Your task to perform on an android device: What's the weather going to be tomorrow? Image 0: 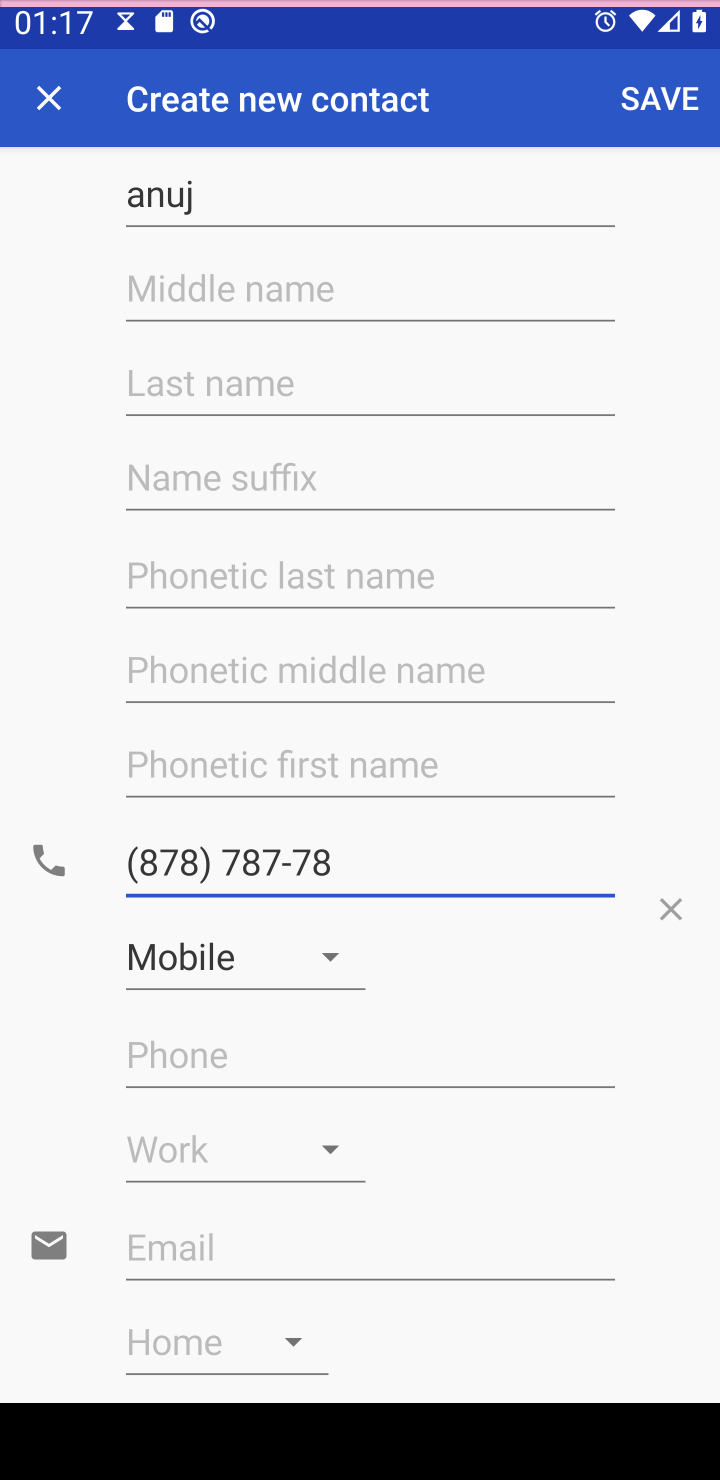
Step 0: click (443, 343)
Your task to perform on an android device: What's the weather going to be tomorrow? Image 1: 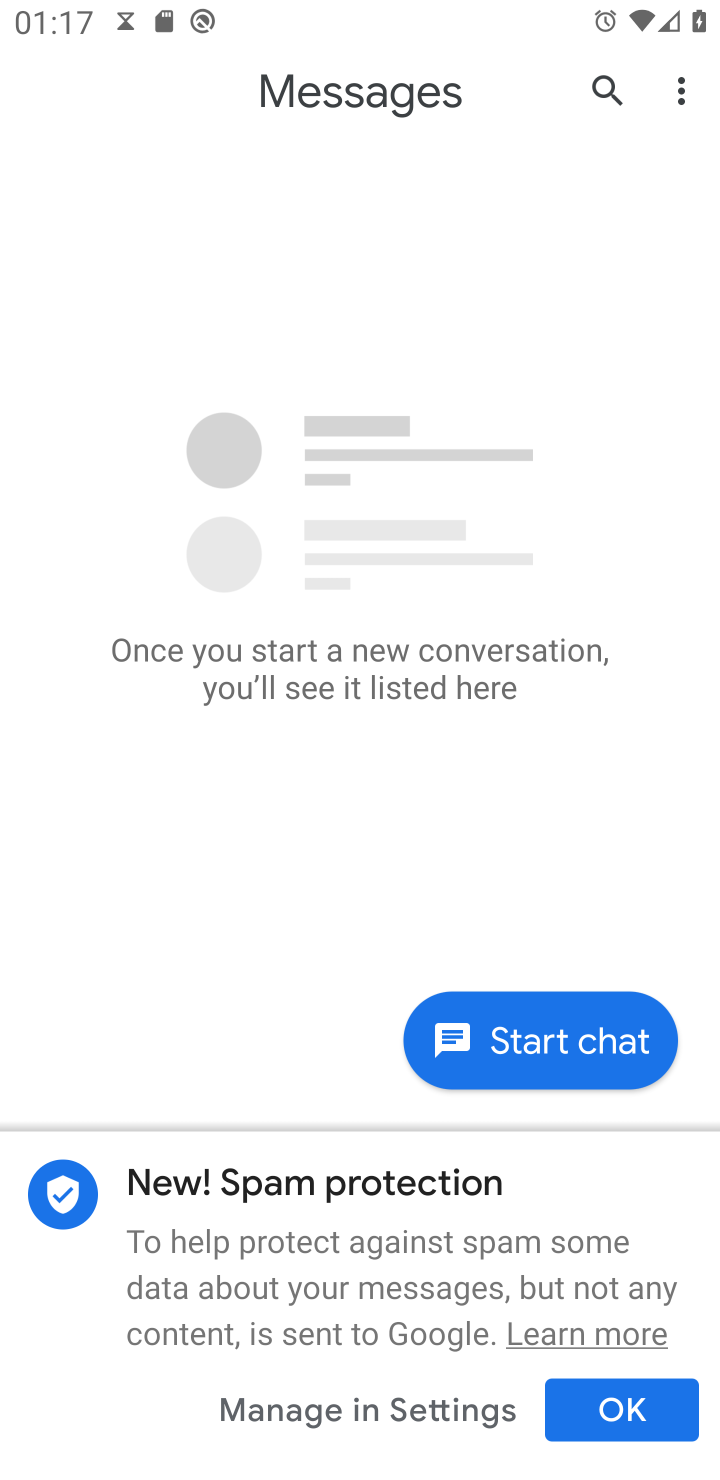
Step 1: press home button
Your task to perform on an android device: What's the weather going to be tomorrow? Image 2: 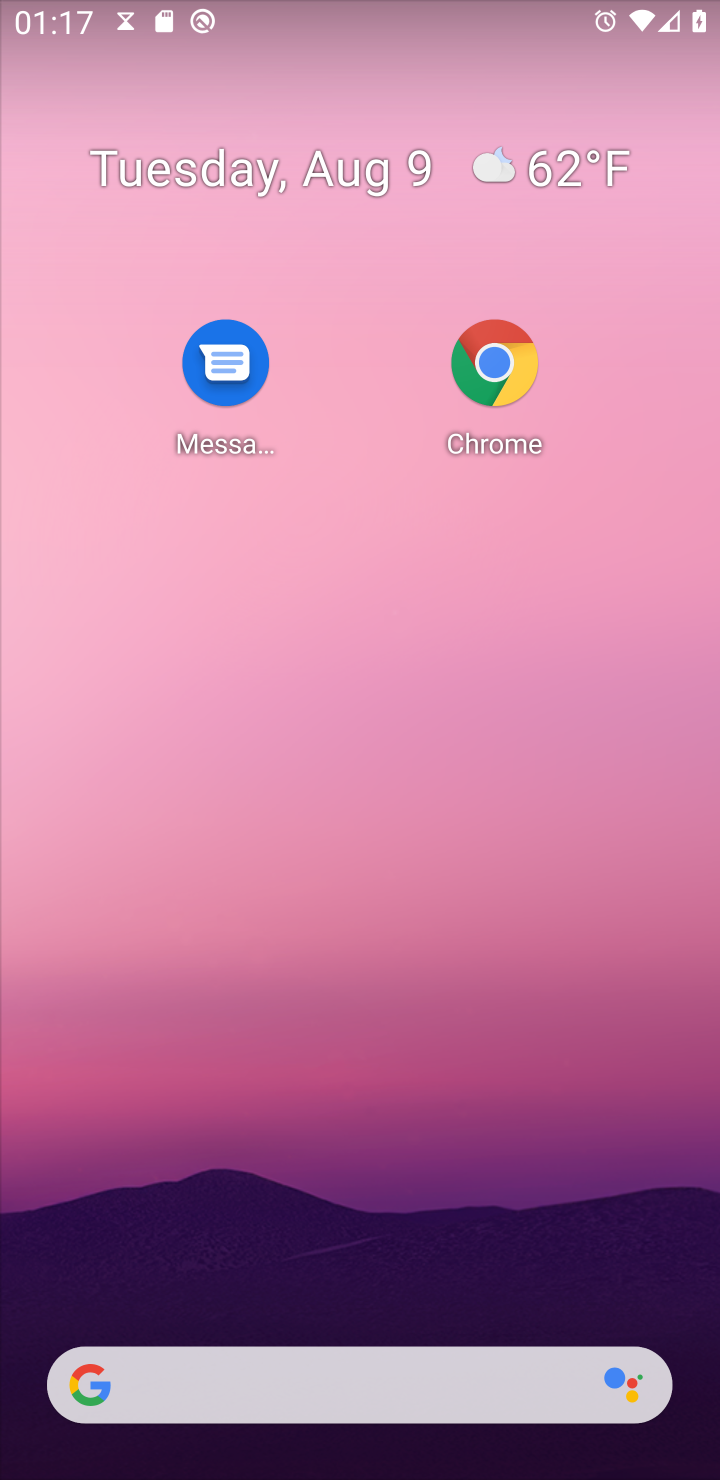
Step 2: drag from (345, 1241) to (340, 509)
Your task to perform on an android device: What's the weather going to be tomorrow? Image 3: 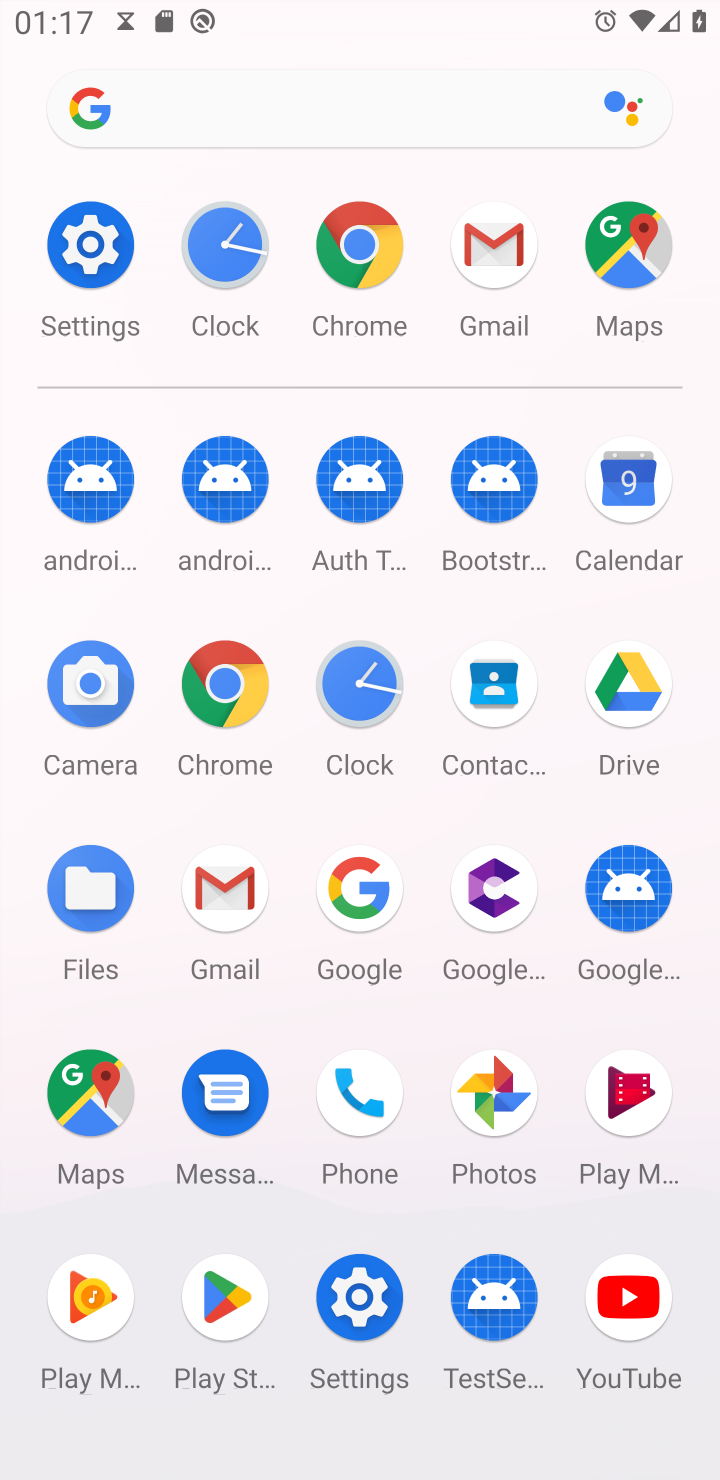
Step 3: click (336, 238)
Your task to perform on an android device: What's the weather going to be tomorrow? Image 4: 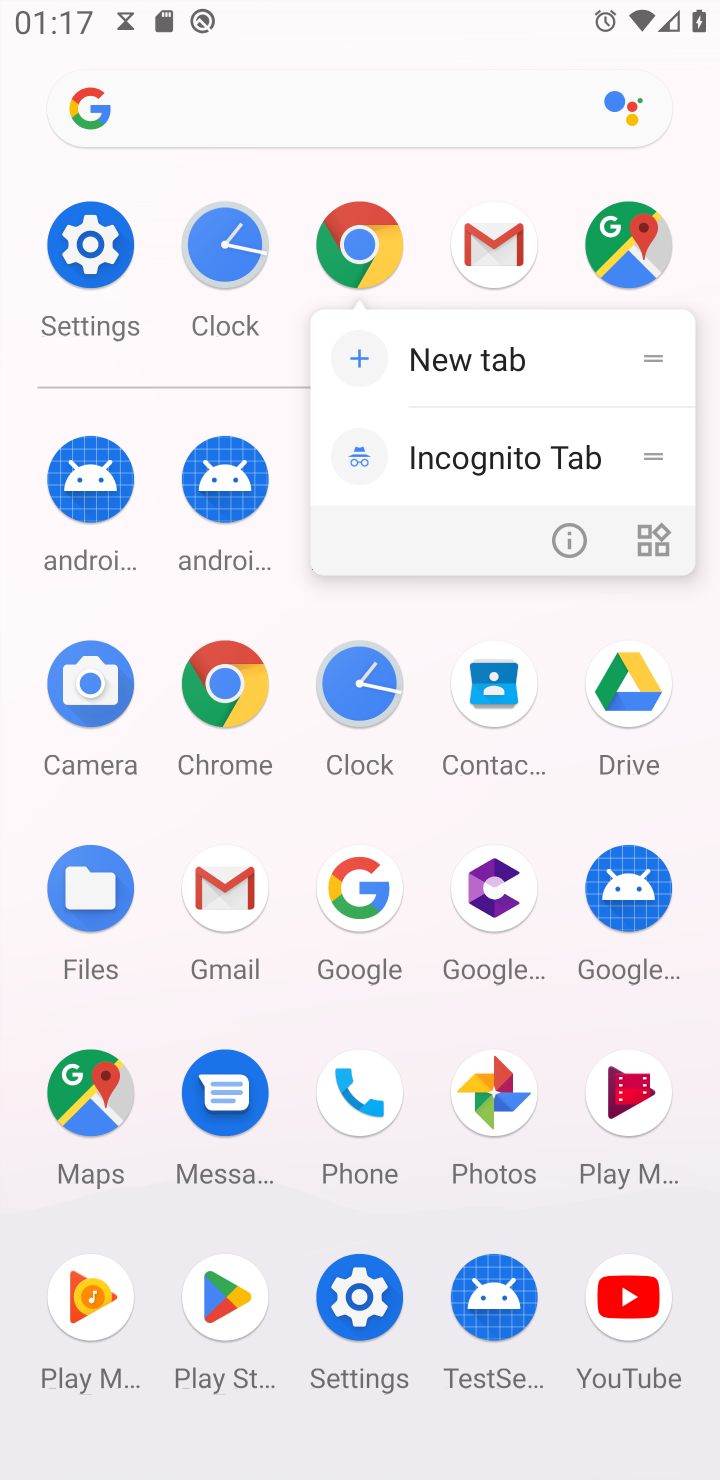
Step 4: click (358, 253)
Your task to perform on an android device: What's the weather going to be tomorrow? Image 5: 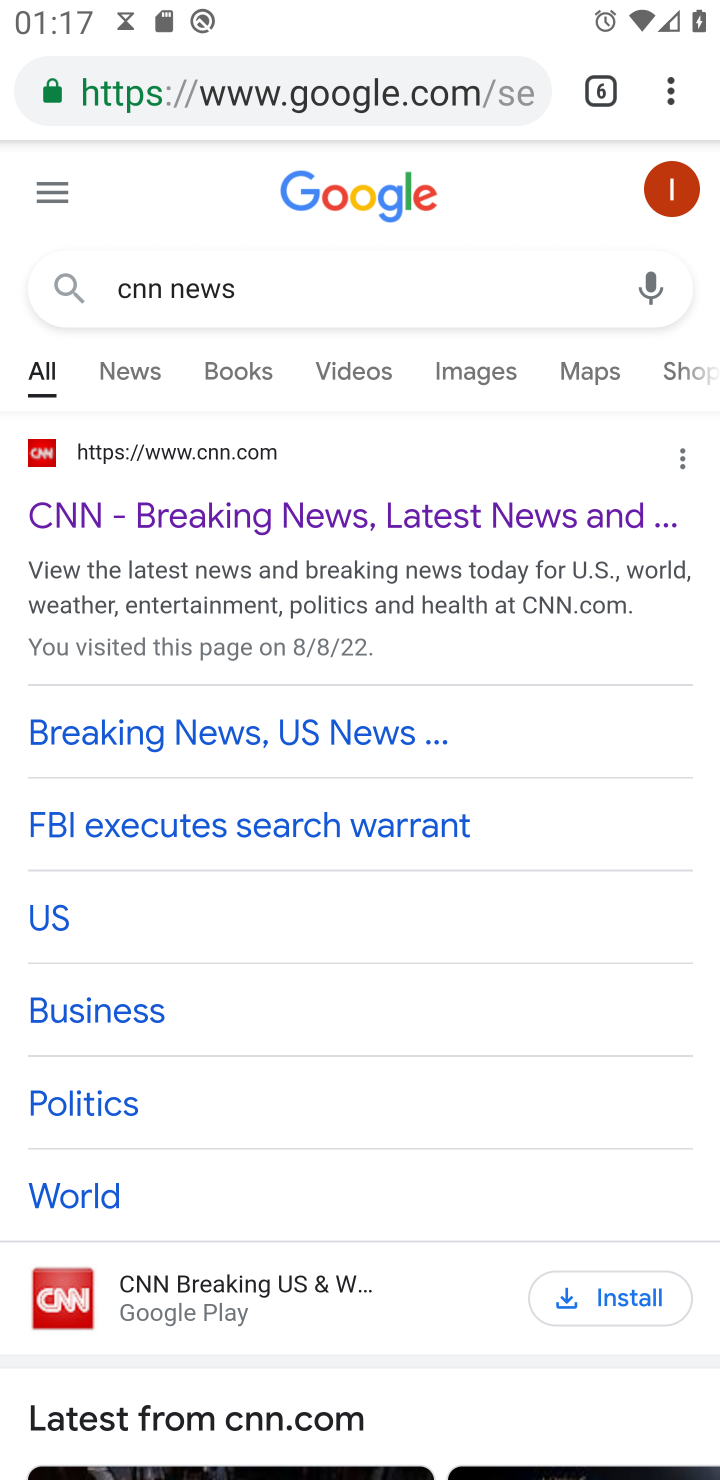
Step 5: click (680, 86)
Your task to perform on an android device: What's the weather going to be tomorrow? Image 6: 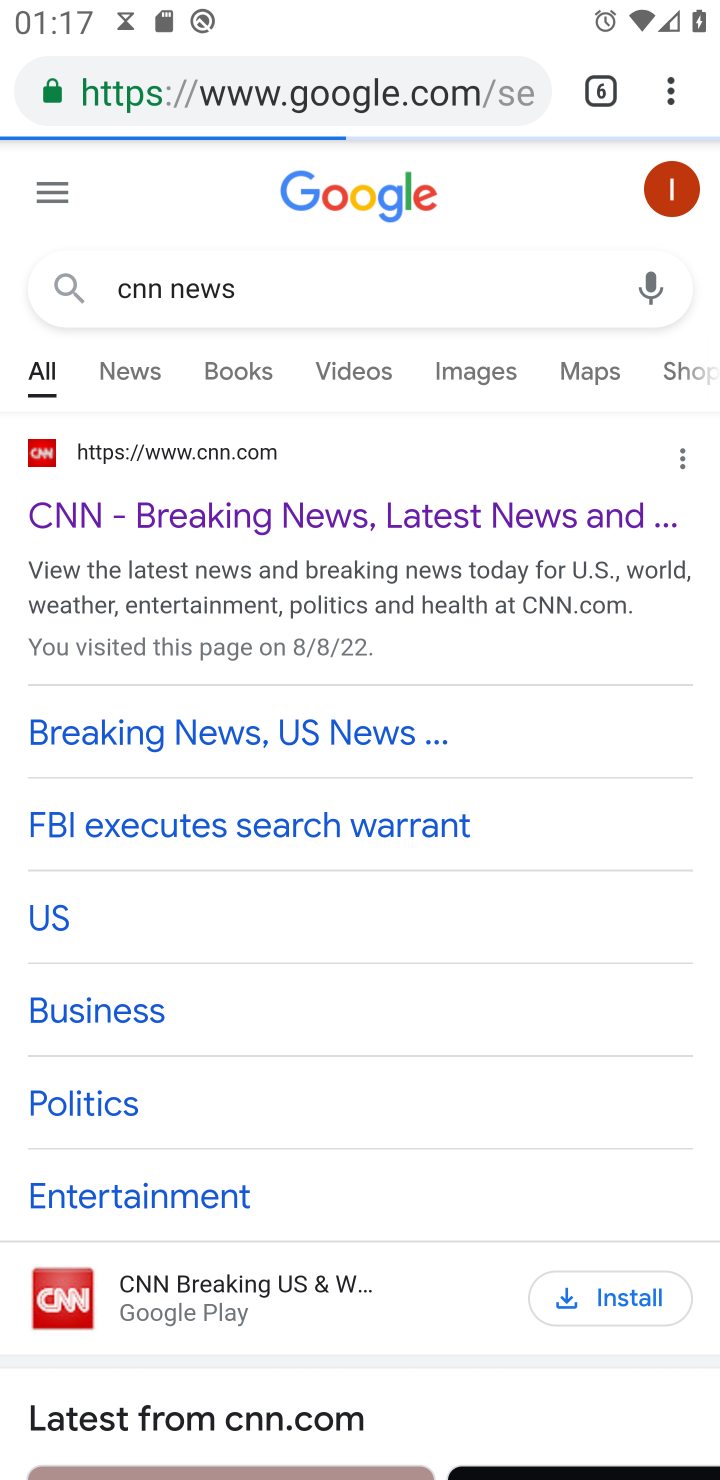
Step 6: click (664, 78)
Your task to perform on an android device: What's the weather going to be tomorrow? Image 7: 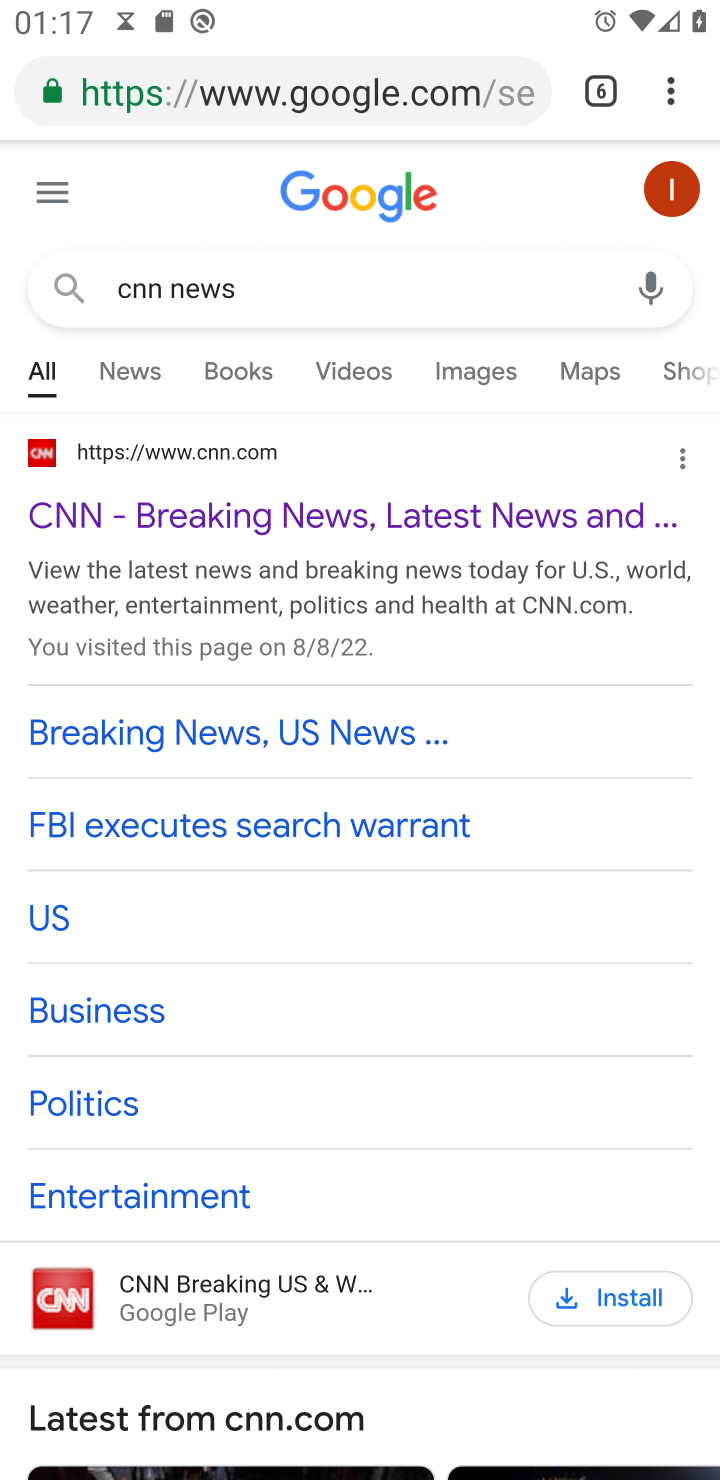
Step 7: click (683, 87)
Your task to perform on an android device: What's the weather going to be tomorrow? Image 8: 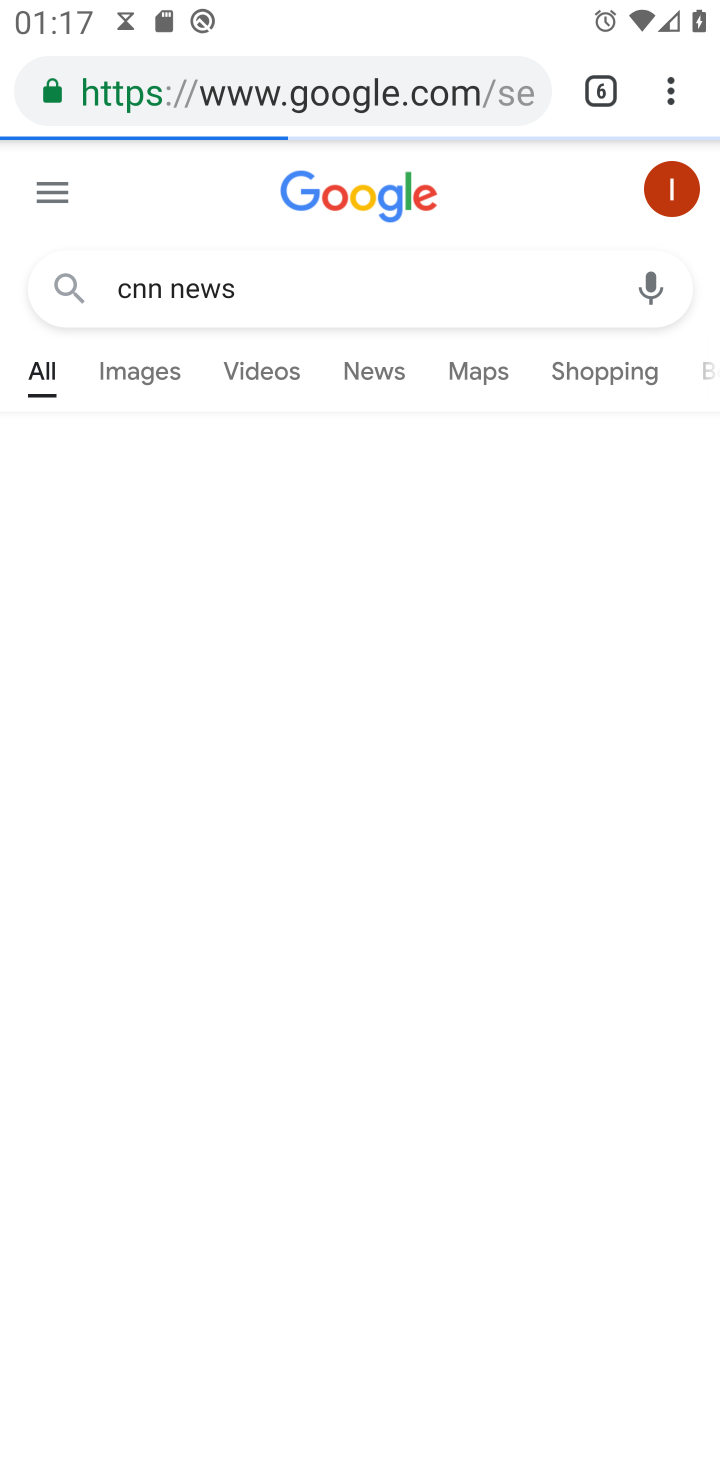
Step 8: click (675, 87)
Your task to perform on an android device: What's the weather going to be tomorrow? Image 9: 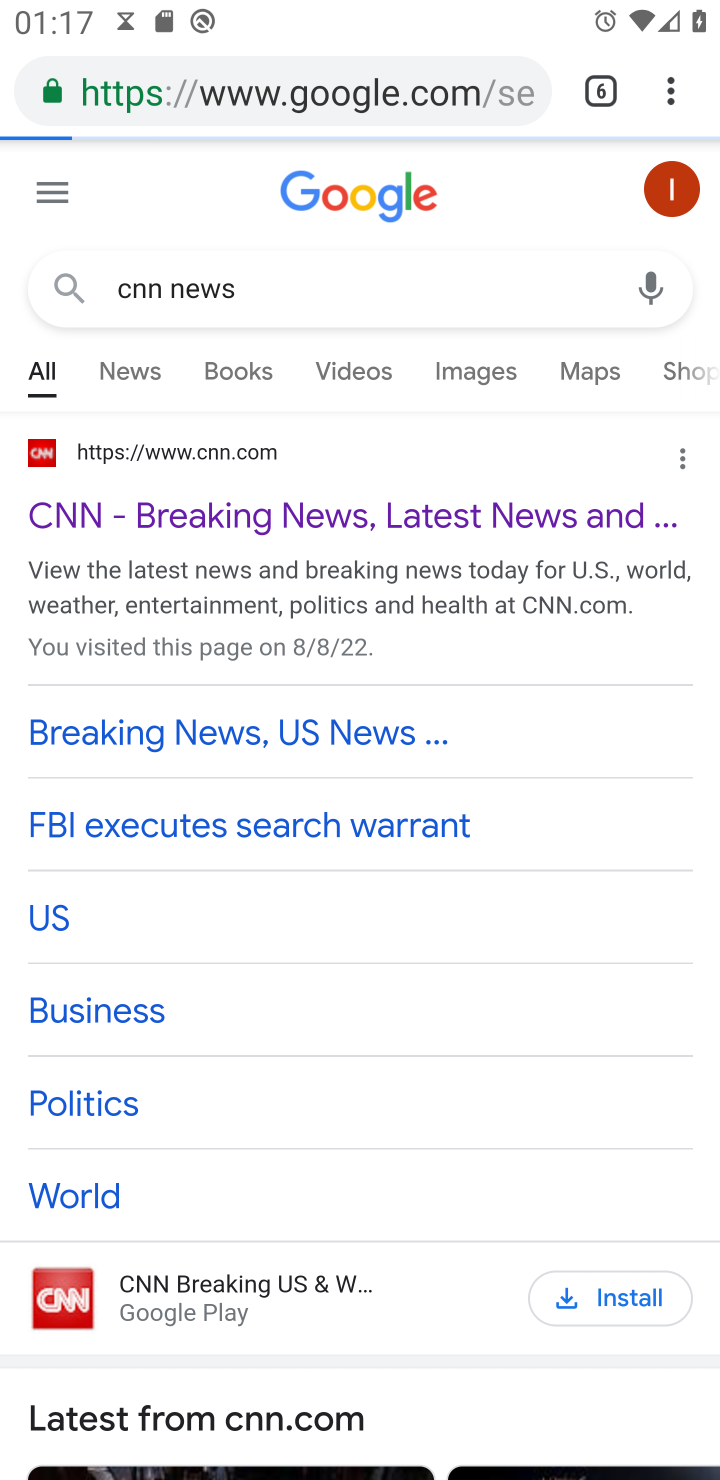
Step 9: click (675, 87)
Your task to perform on an android device: What's the weather going to be tomorrow? Image 10: 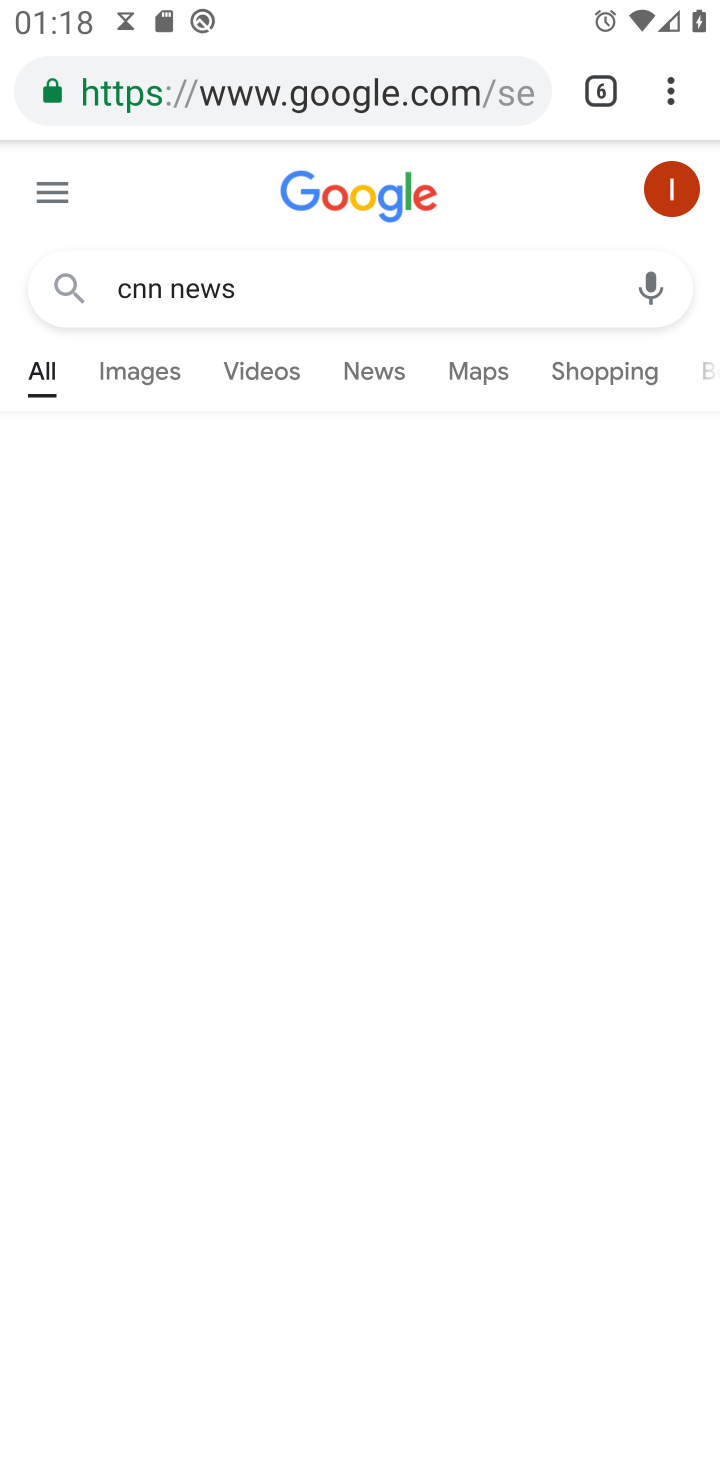
Step 10: click (675, 87)
Your task to perform on an android device: What's the weather going to be tomorrow? Image 11: 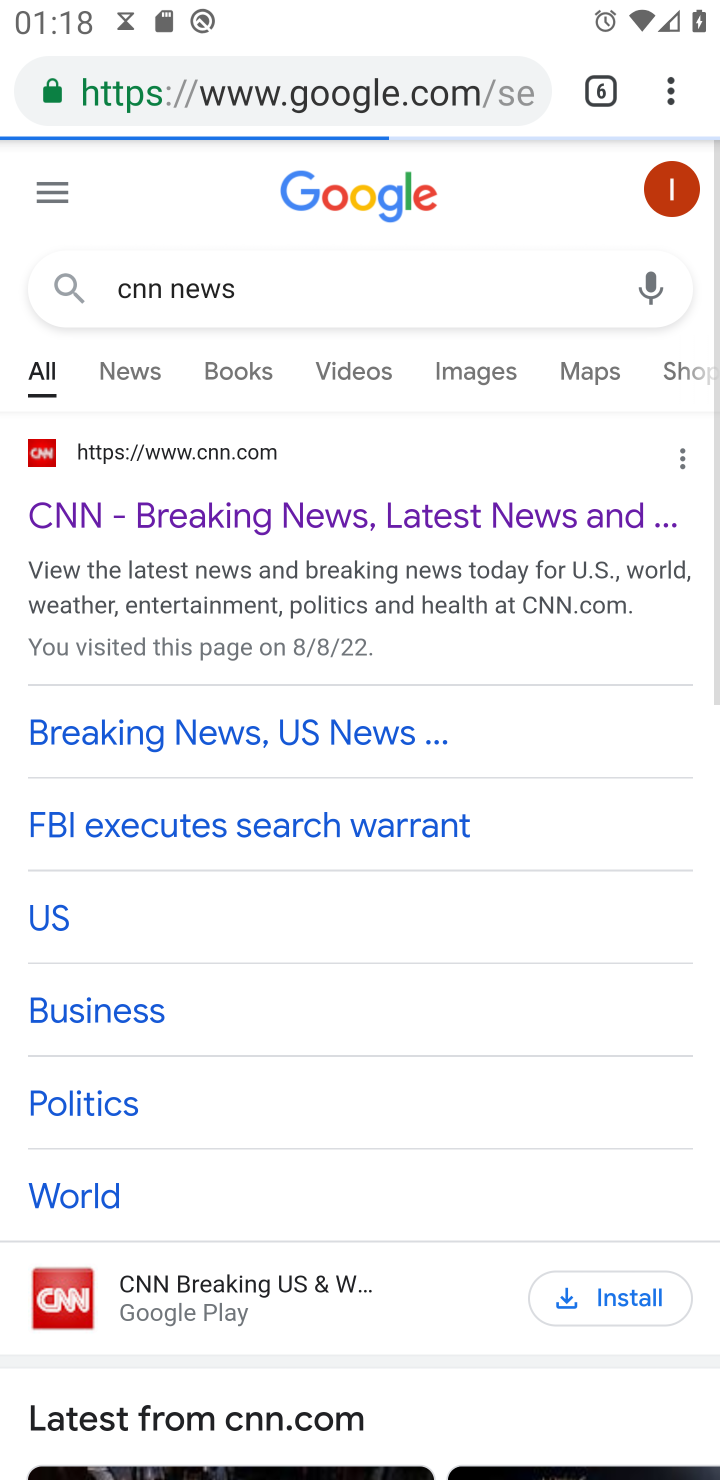
Step 11: click (692, 83)
Your task to perform on an android device: What's the weather going to be tomorrow? Image 12: 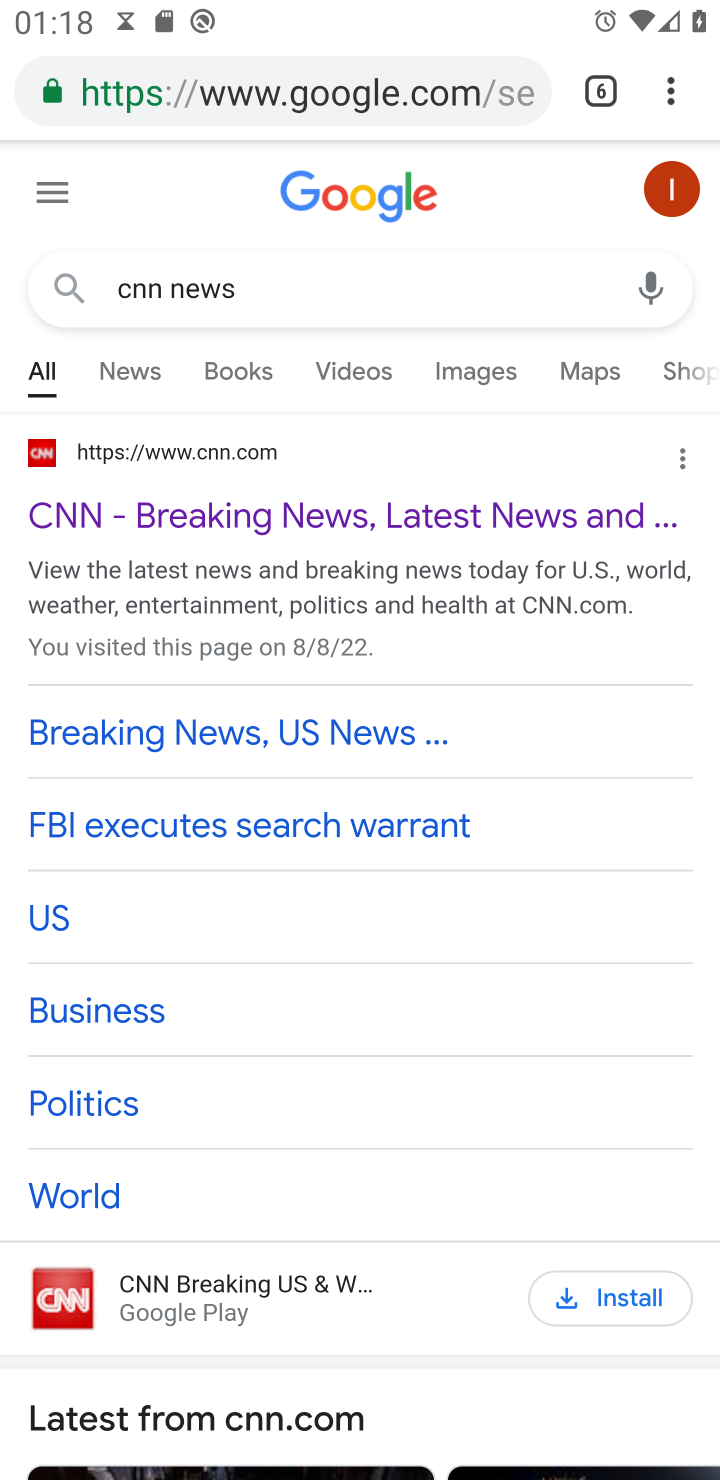
Step 12: click (662, 81)
Your task to perform on an android device: What's the weather going to be tomorrow? Image 13: 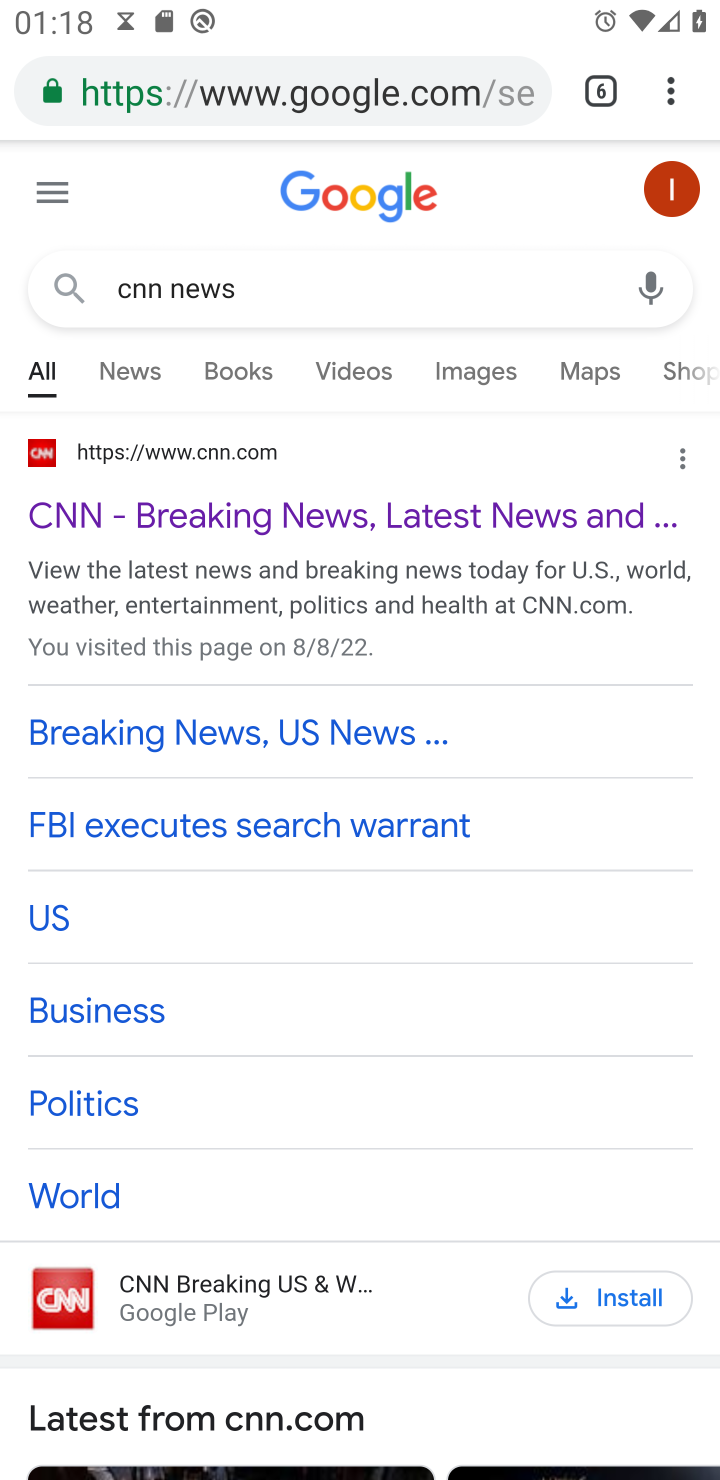
Step 13: click (693, 80)
Your task to perform on an android device: What's the weather going to be tomorrow? Image 14: 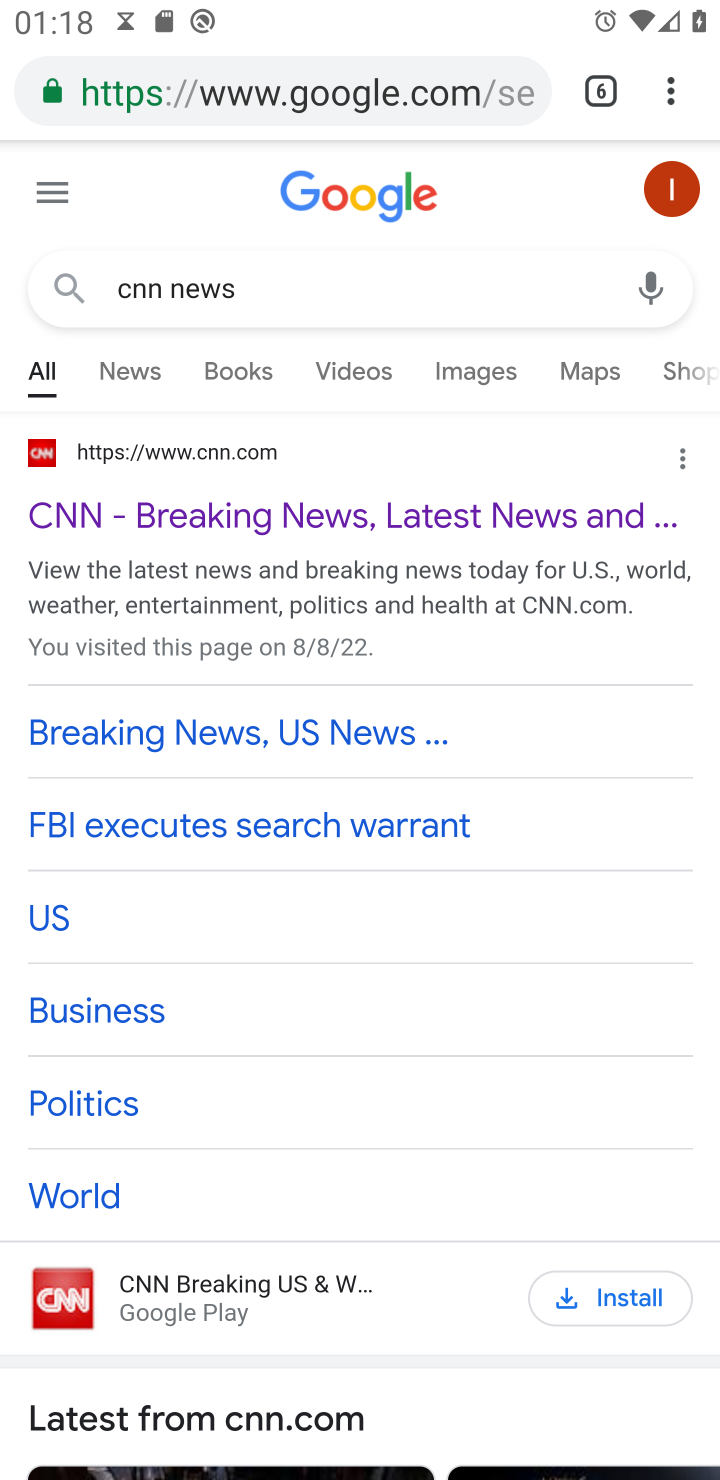
Step 14: click (669, 93)
Your task to perform on an android device: What's the weather going to be tomorrow? Image 15: 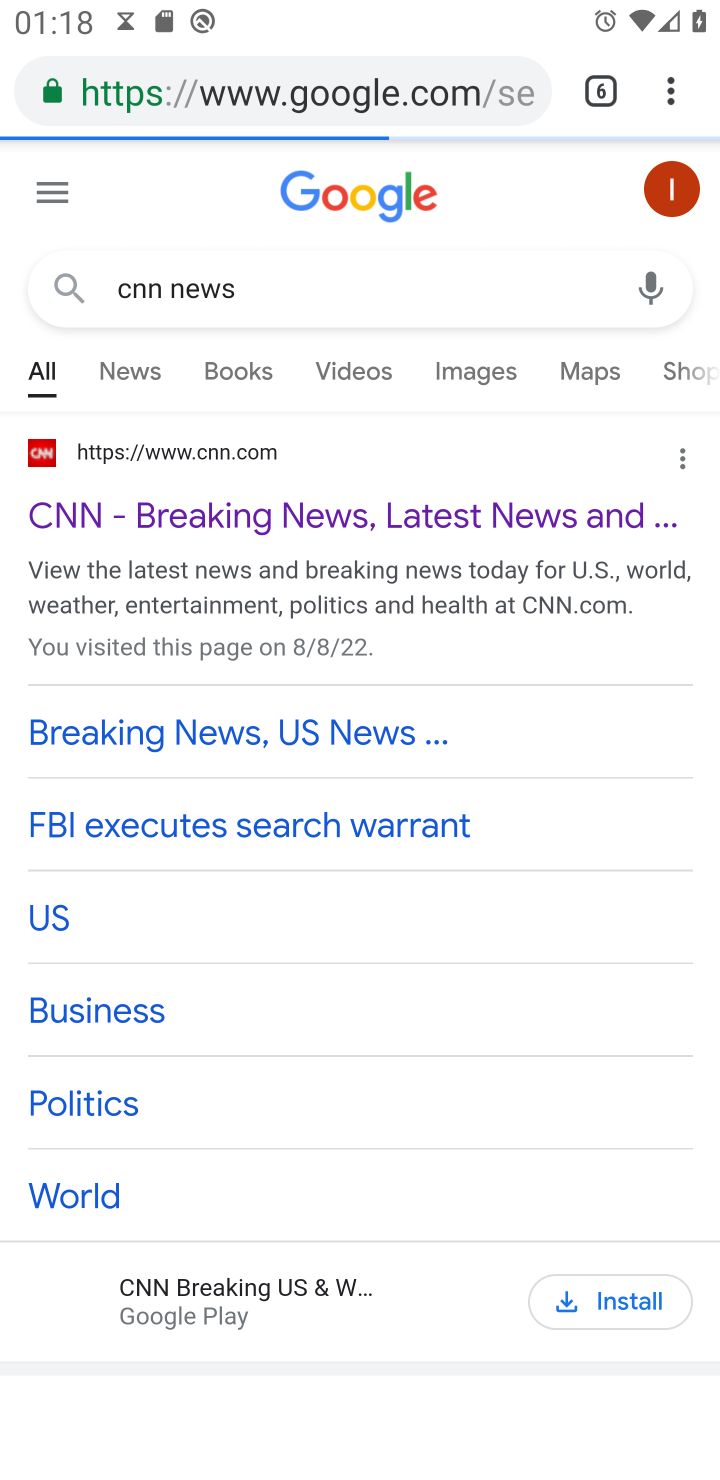
Step 15: click (669, 93)
Your task to perform on an android device: What's the weather going to be tomorrow? Image 16: 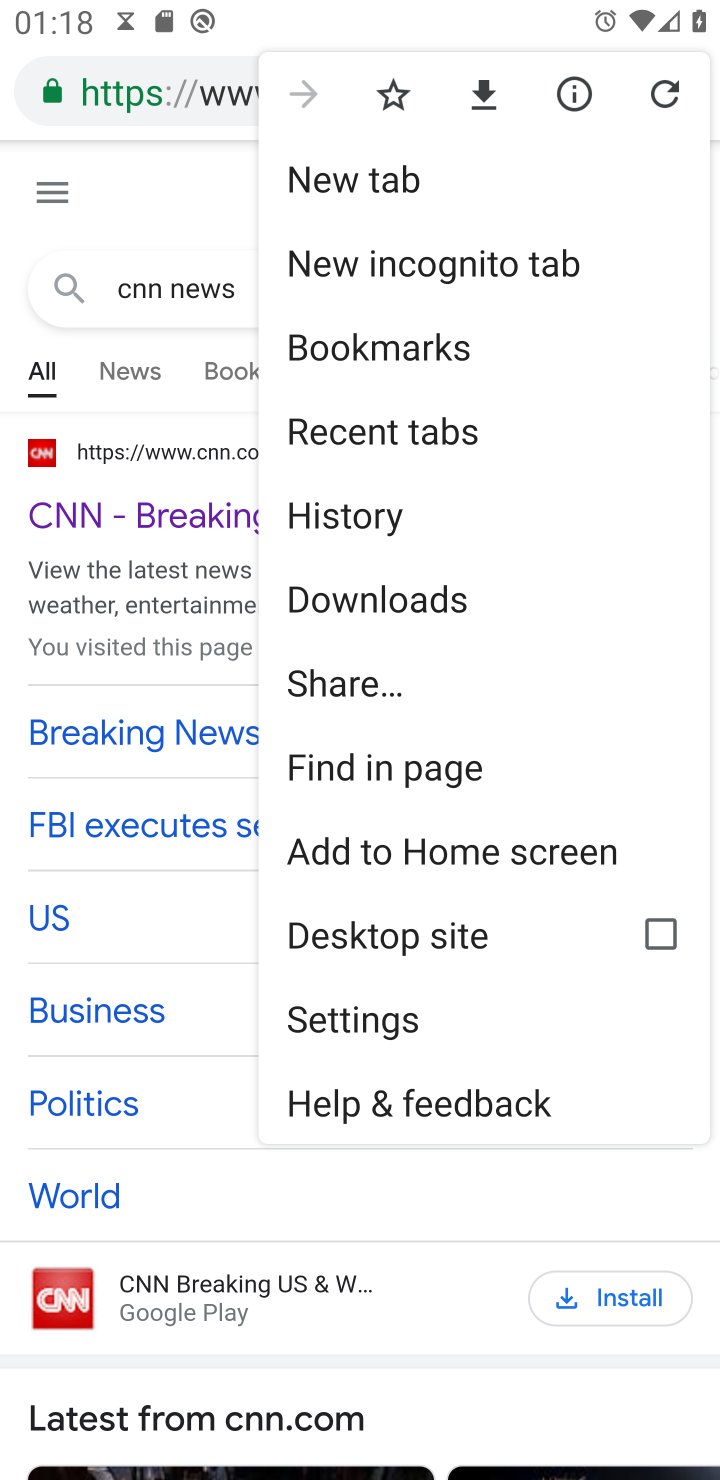
Step 16: click (388, 178)
Your task to perform on an android device: What's the weather going to be tomorrow? Image 17: 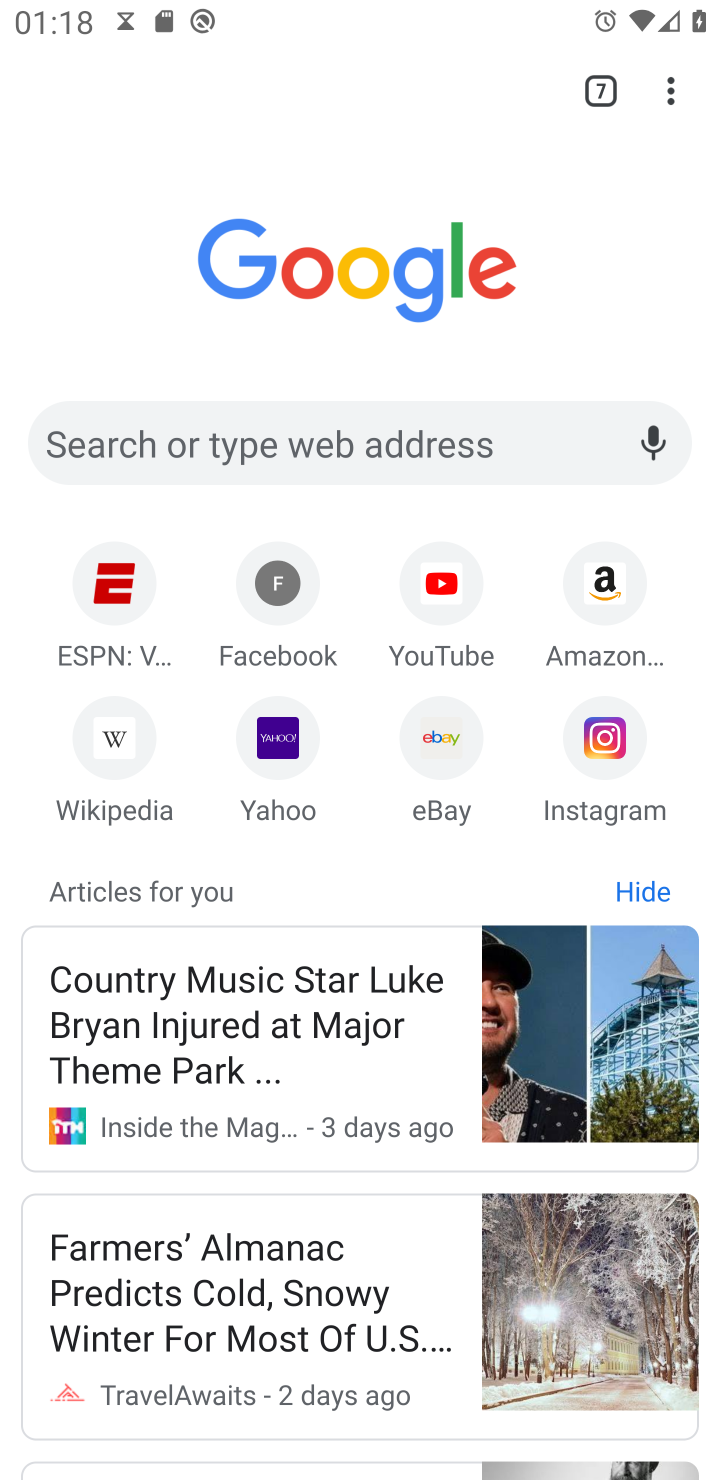
Step 17: click (299, 404)
Your task to perform on an android device: What's the weather going to be tomorrow? Image 18: 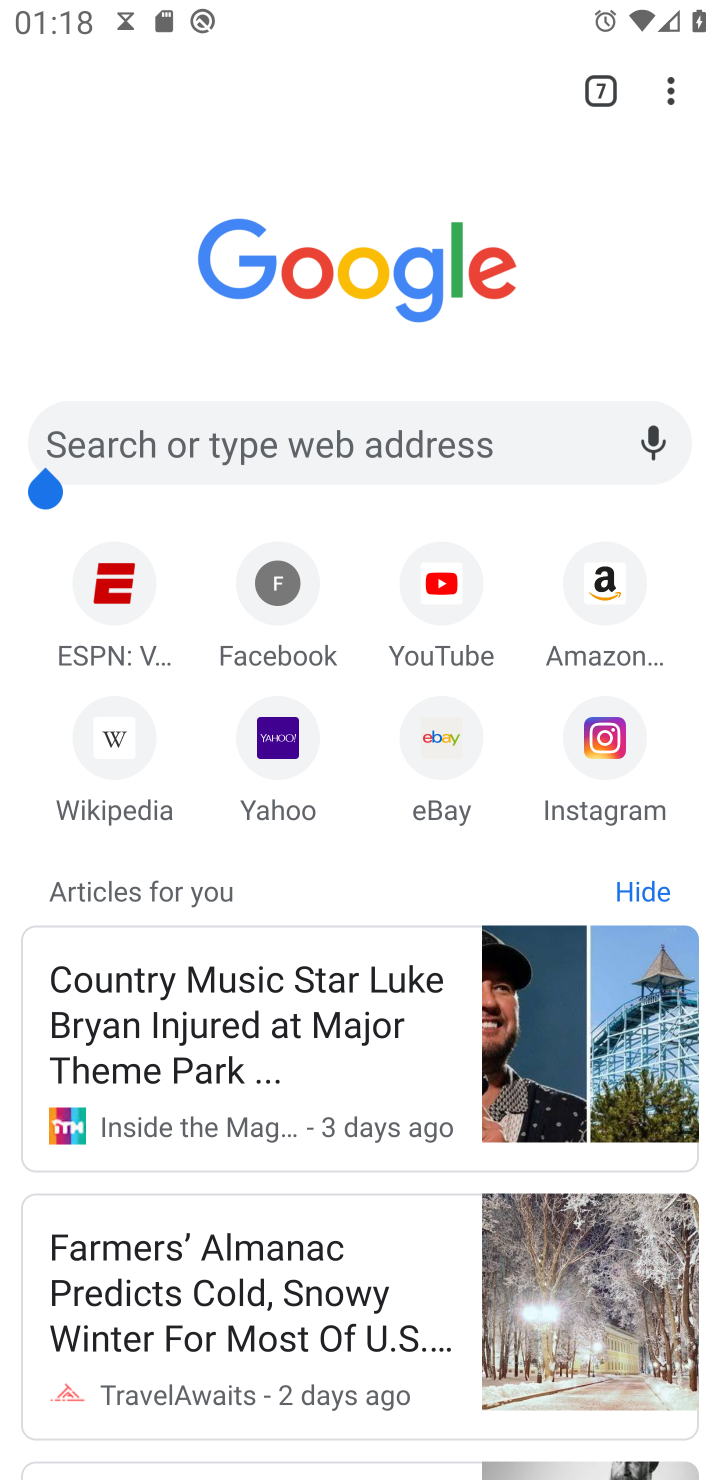
Step 18: type "What's the weather going to be tomorrow? "
Your task to perform on an android device: What's the weather going to be tomorrow? Image 19: 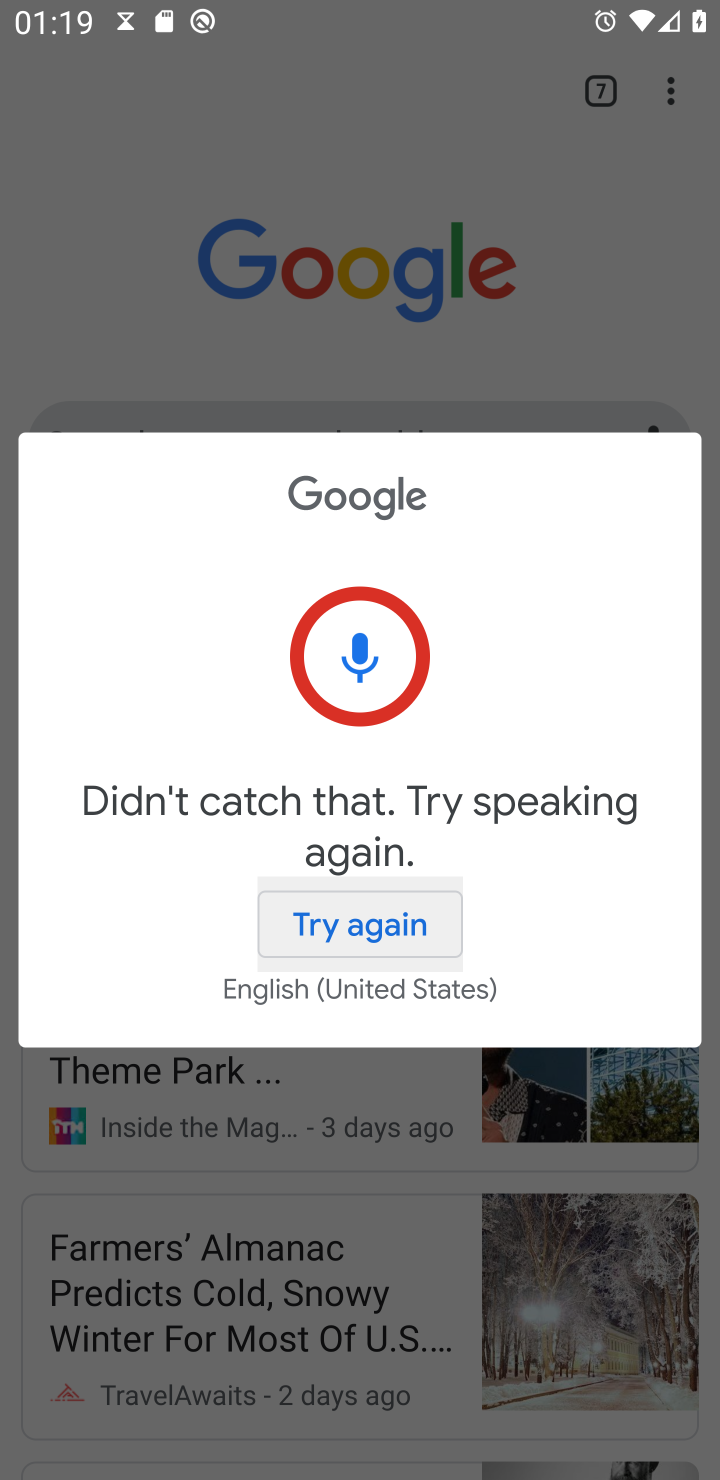
Step 19: click (522, 313)
Your task to perform on an android device: What's the weather going to be tomorrow? Image 20: 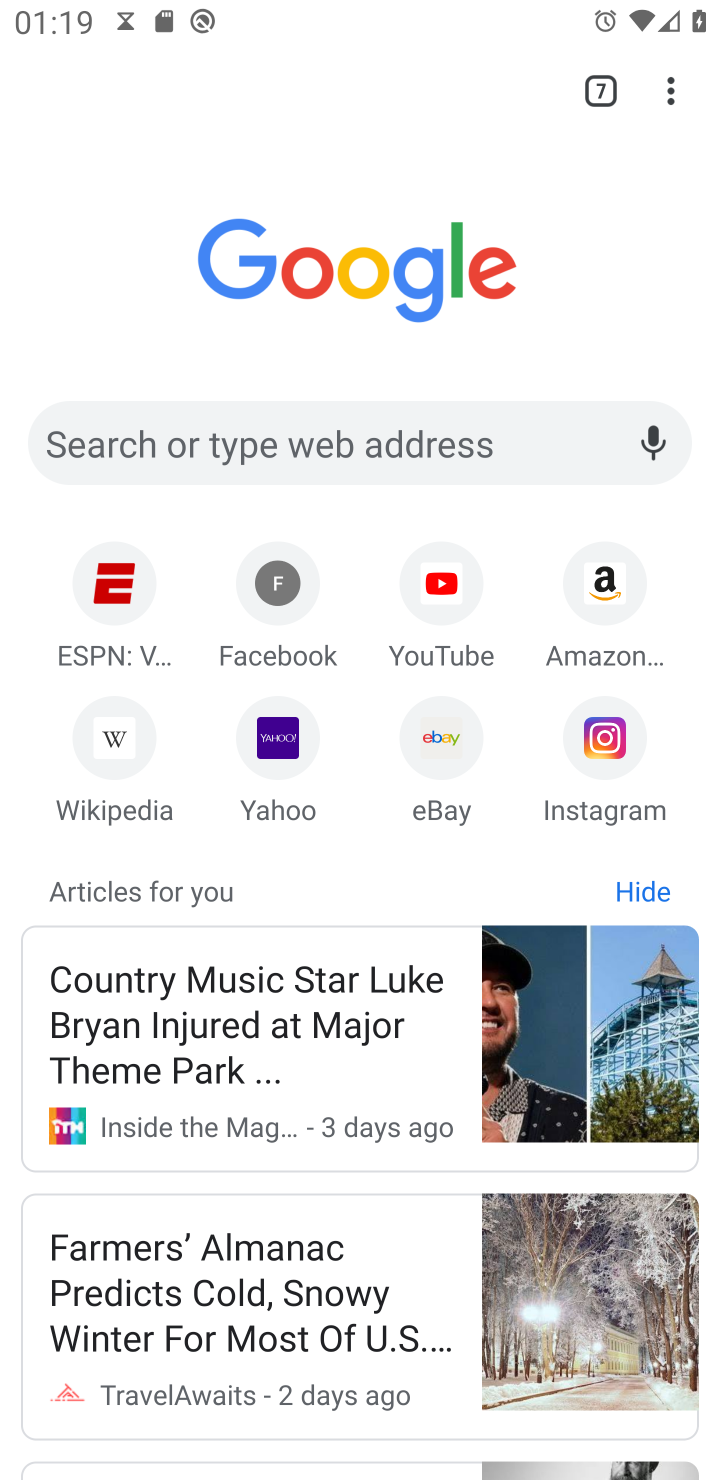
Step 20: click (398, 455)
Your task to perform on an android device: What's the weather going to be tomorrow? Image 21: 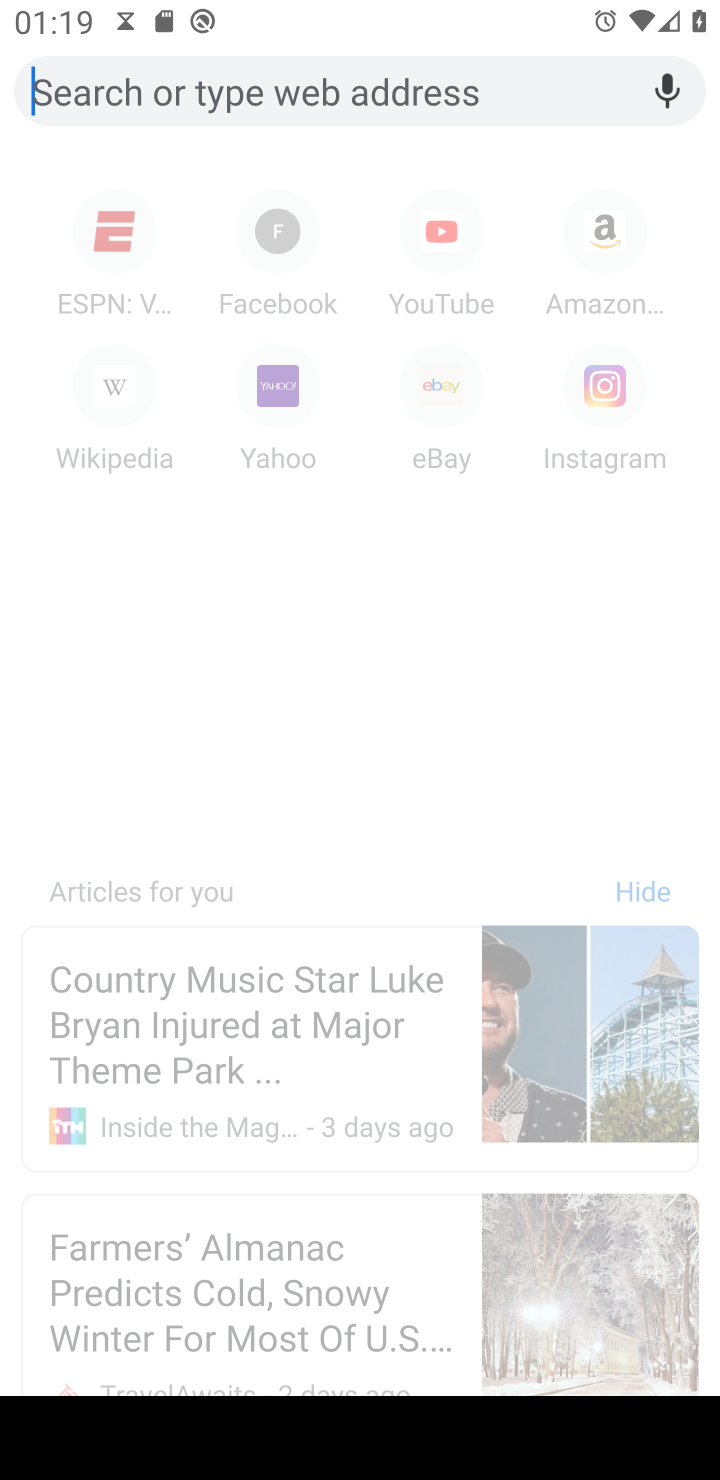
Step 21: type "What's the weather going to be tomorrow? "
Your task to perform on an android device: What's the weather going to be tomorrow? Image 22: 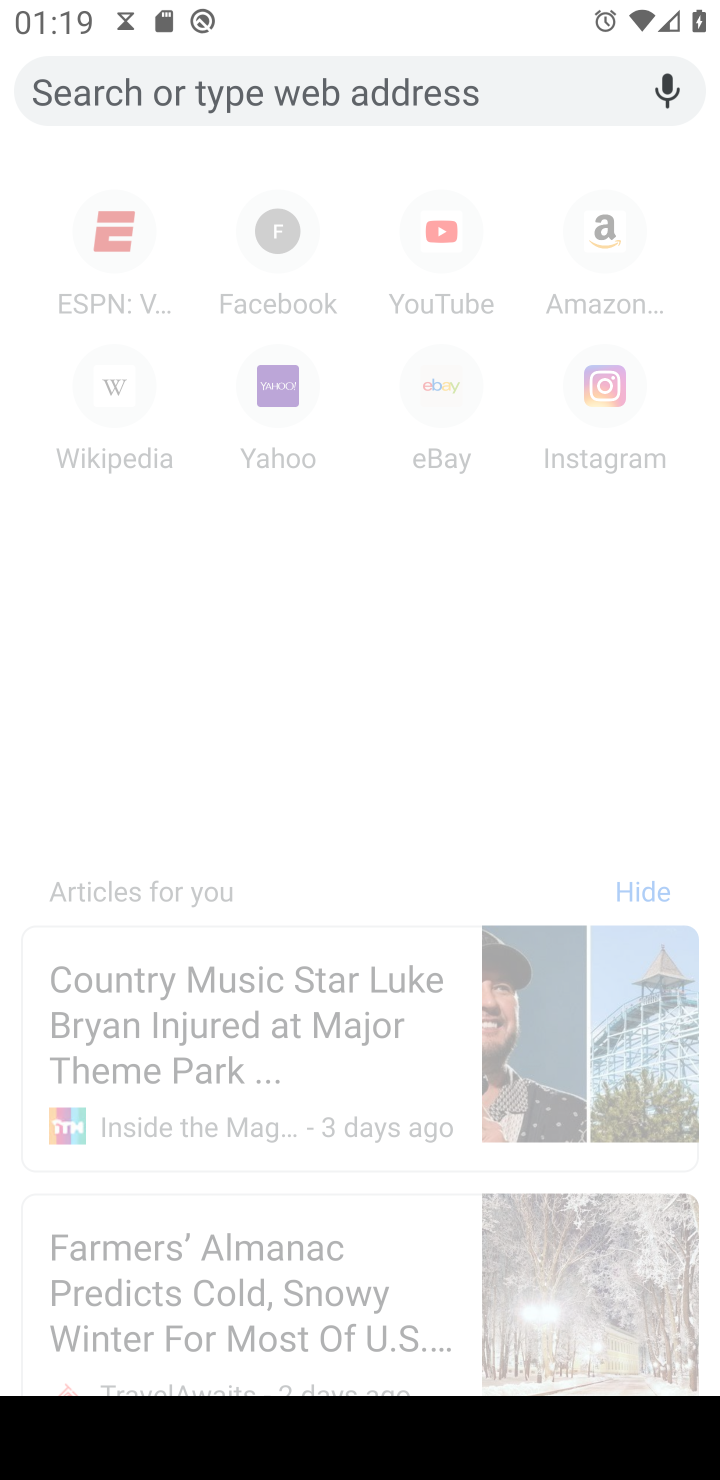
Step 22: click (390, 84)
Your task to perform on an android device: What's the weather going to be tomorrow? Image 23: 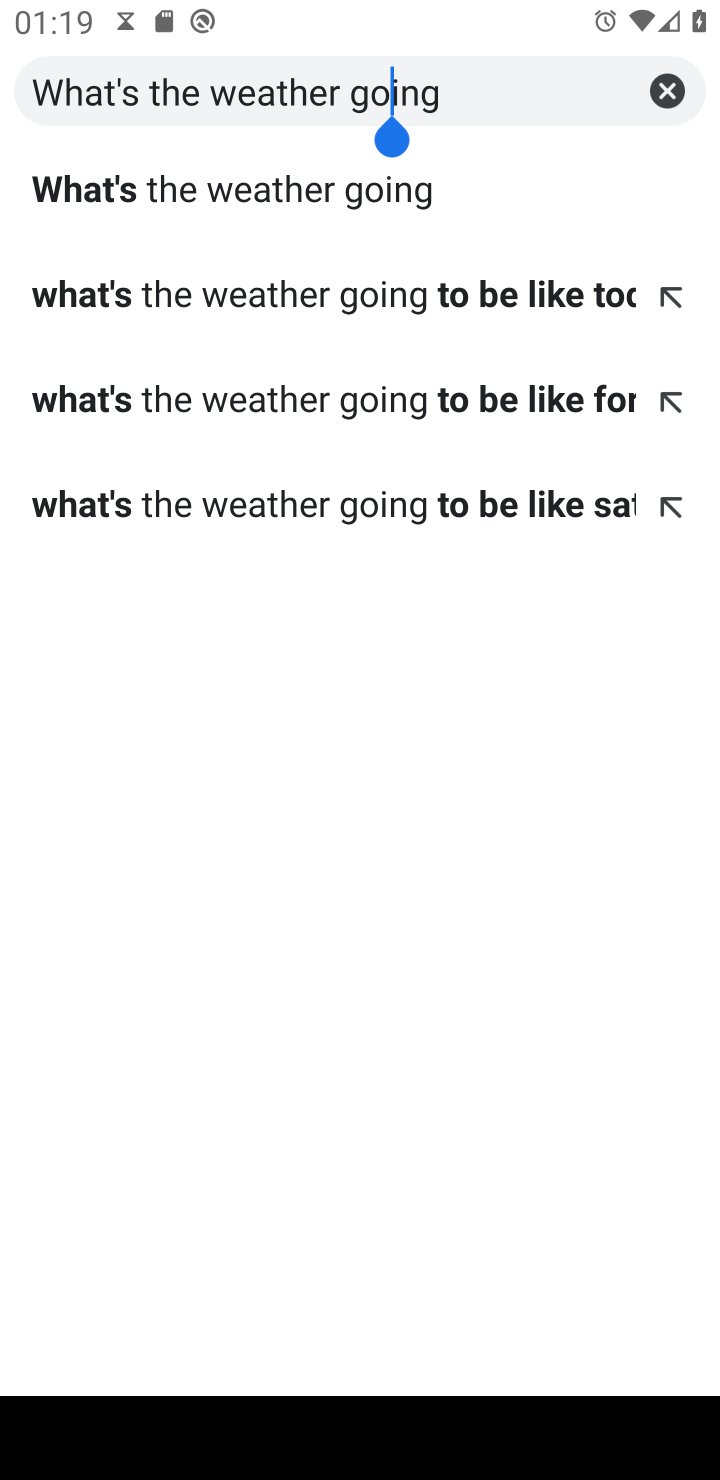
Step 23: click (341, 197)
Your task to perform on an android device: What's the weather going to be tomorrow? Image 24: 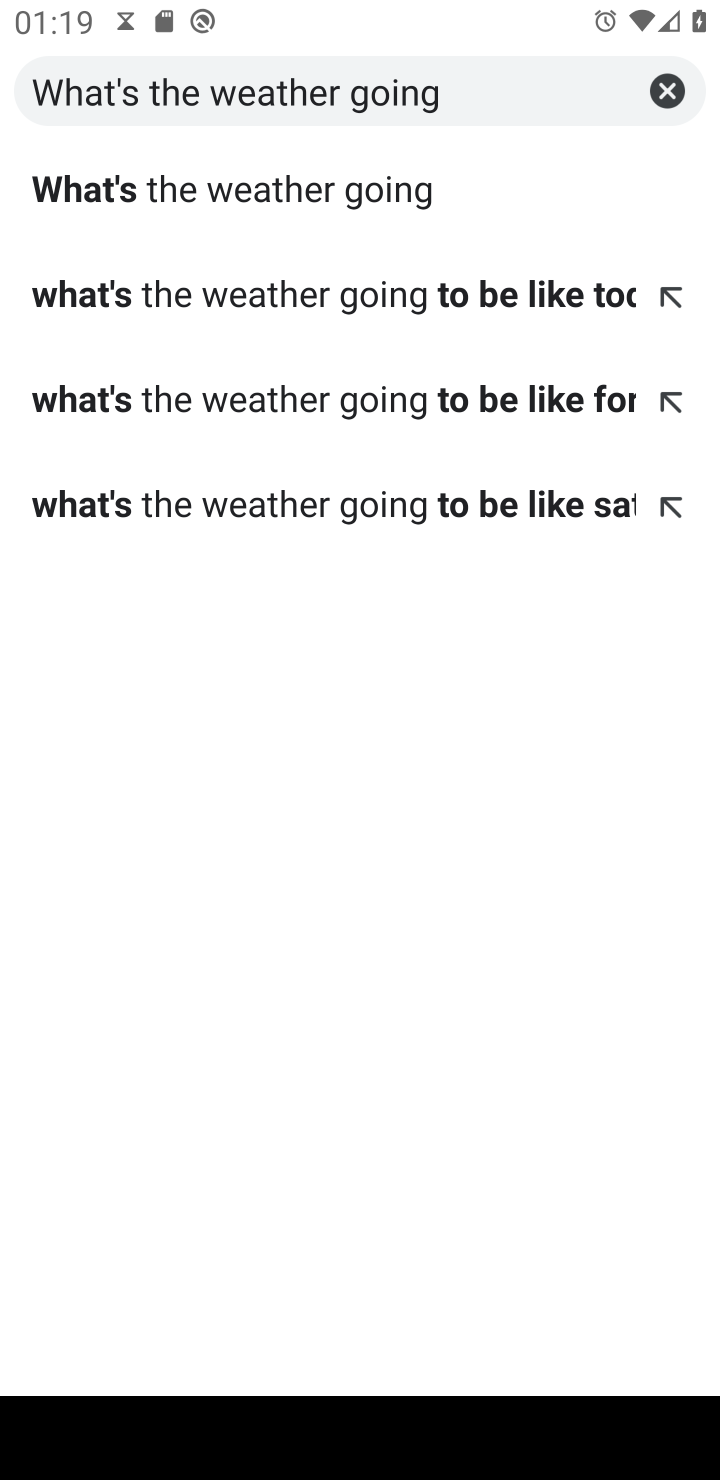
Step 24: click (182, 169)
Your task to perform on an android device: What's the weather going to be tomorrow? Image 25: 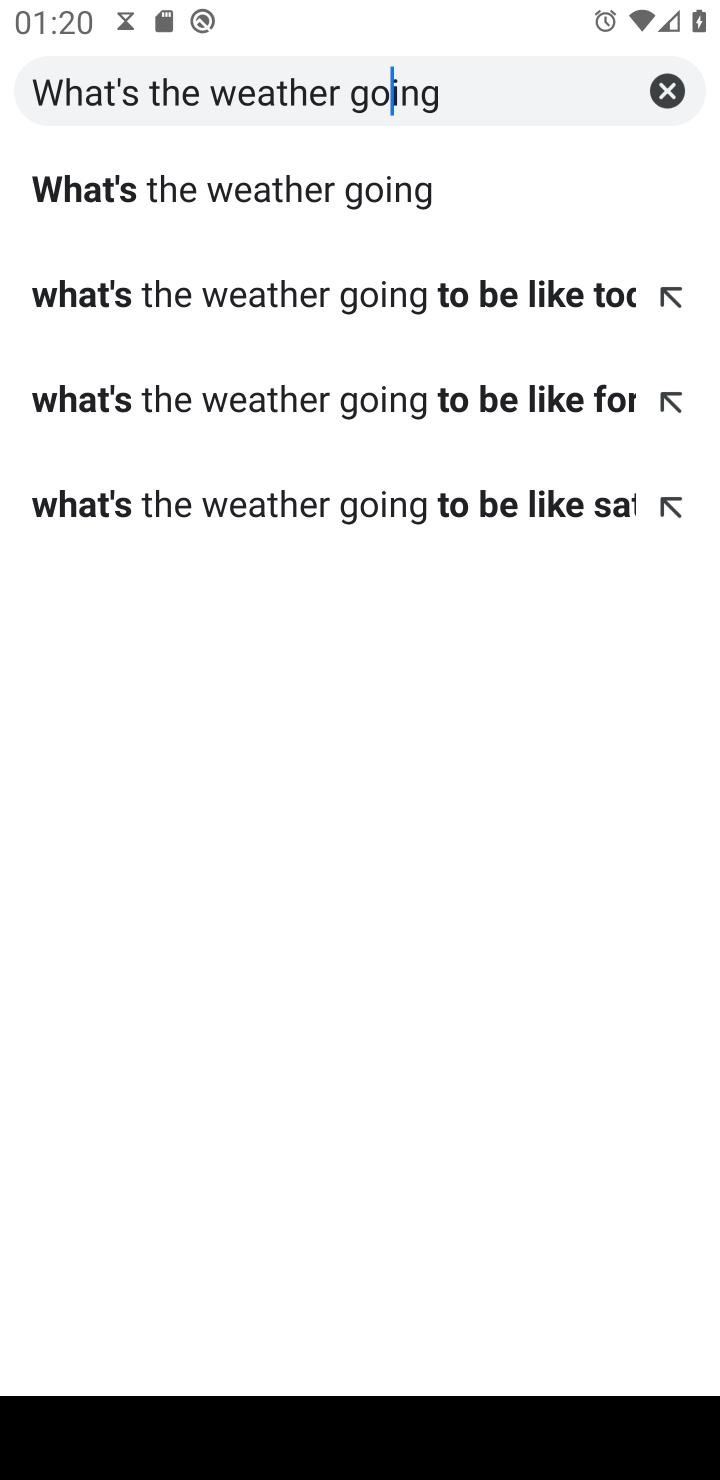
Step 25: click (182, 170)
Your task to perform on an android device: What's the weather going to be tomorrow? Image 26: 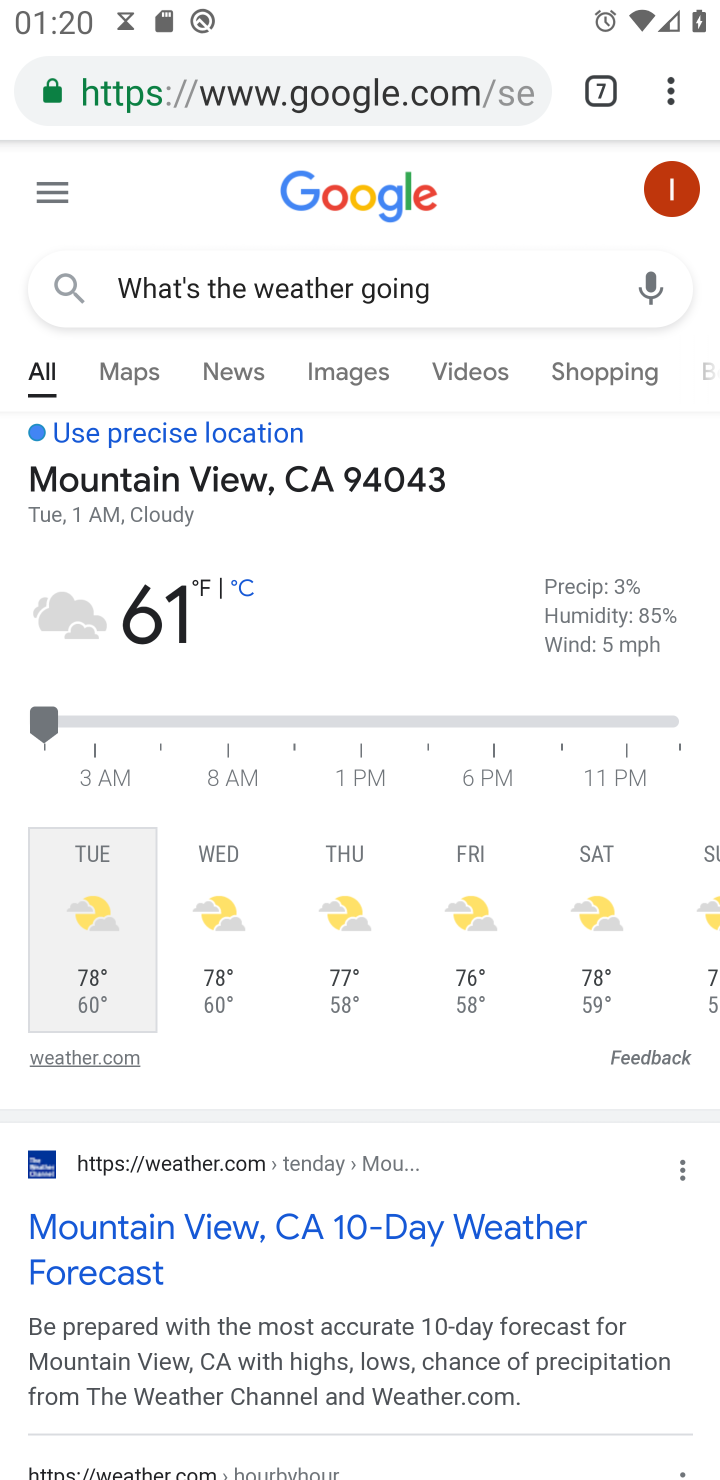
Step 26: task complete